Your task to perform on an android device: check battery use Image 0: 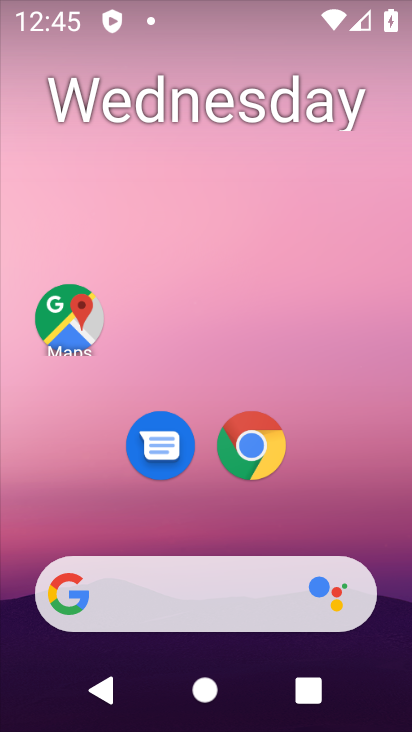
Step 0: drag from (392, 574) to (328, 59)
Your task to perform on an android device: check battery use Image 1: 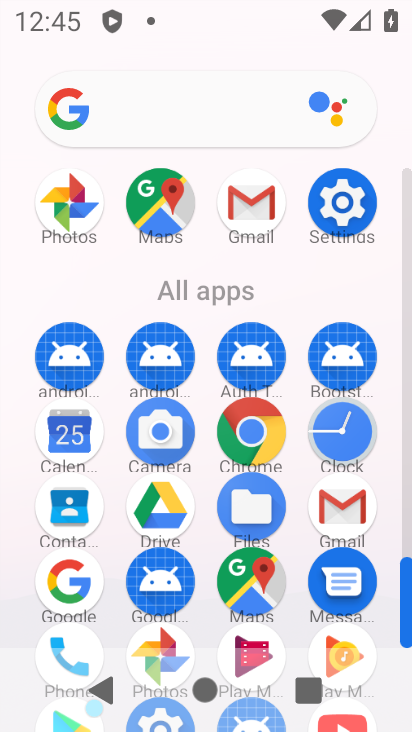
Step 1: click (365, 214)
Your task to perform on an android device: check battery use Image 2: 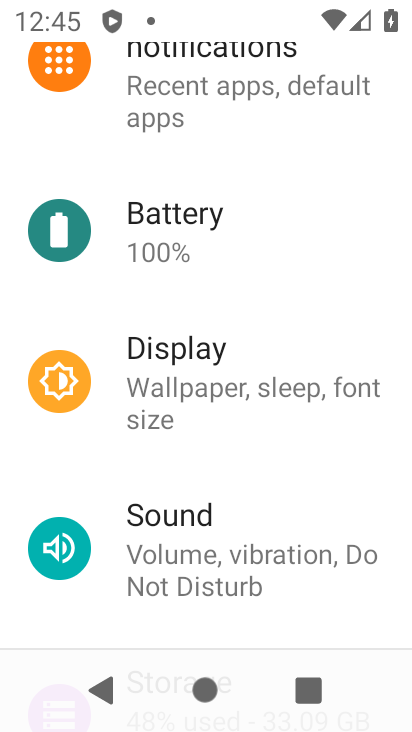
Step 2: click (234, 223)
Your task to perform on an android device: check battery use Image 3: 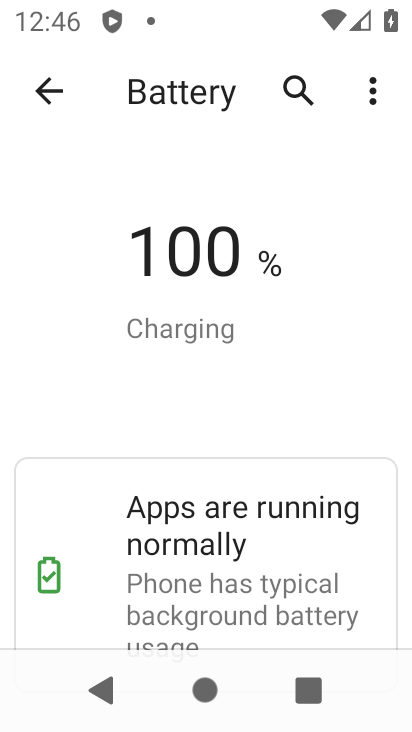
Step 3: task complete